Your task to perform on an android device: turn on priority inbox in the gmail app Image 0: 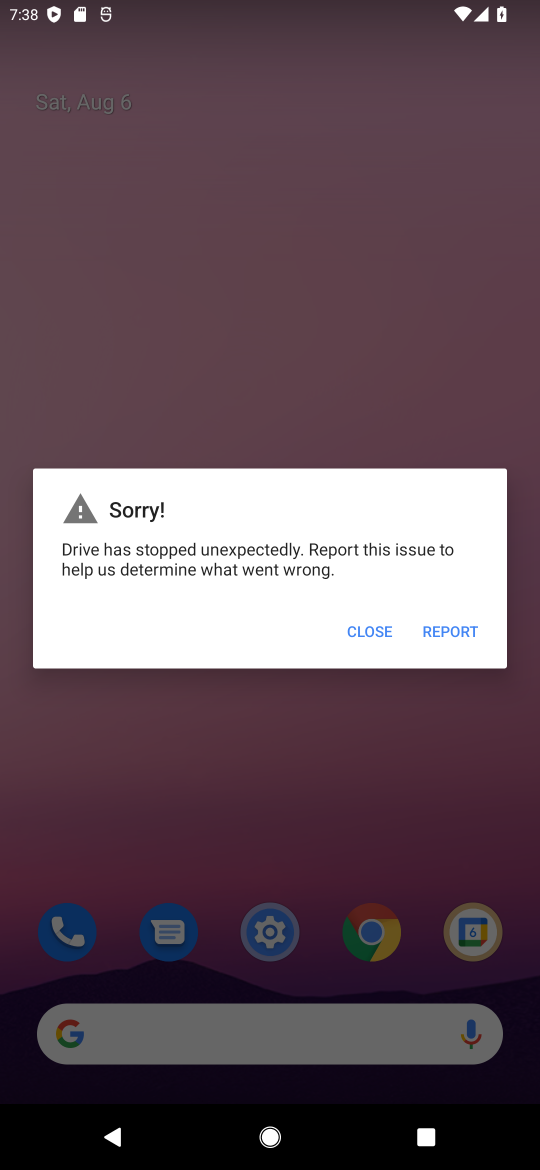
Step 0: press home button
Your task to perform on an android device: turn on priority inbox in the gmail app Image 1: 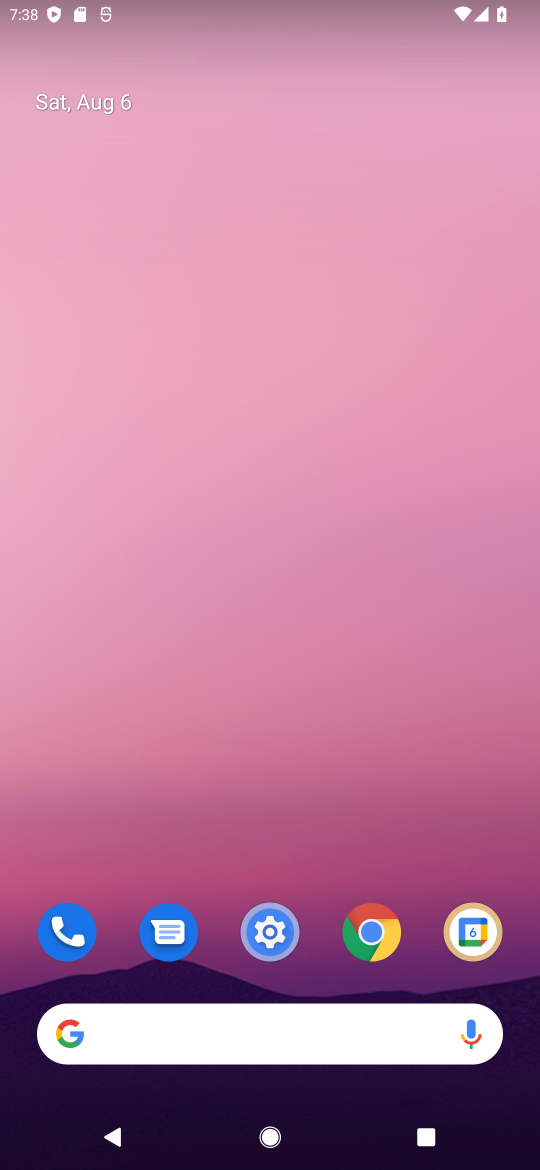
Step 1: drag from (300, 991) to (380, 417)
Your task to perform on an android device: turn on priority inbox in the gmail app Image 2: 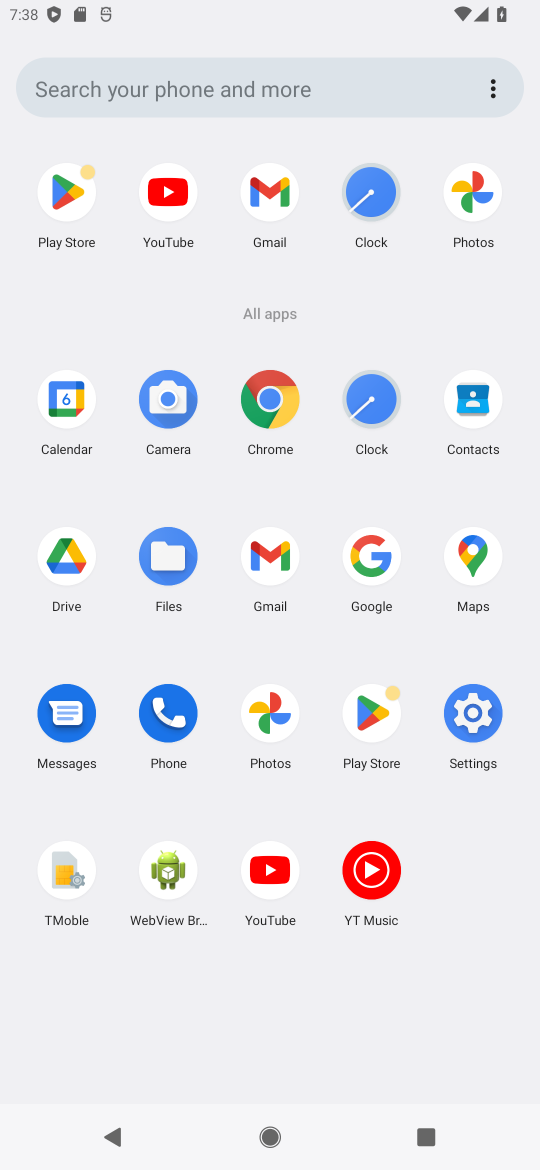
Step 2: click (262, 193)
Your task to perform on an android device: turn on priority inbox in the gmail app Image 3: 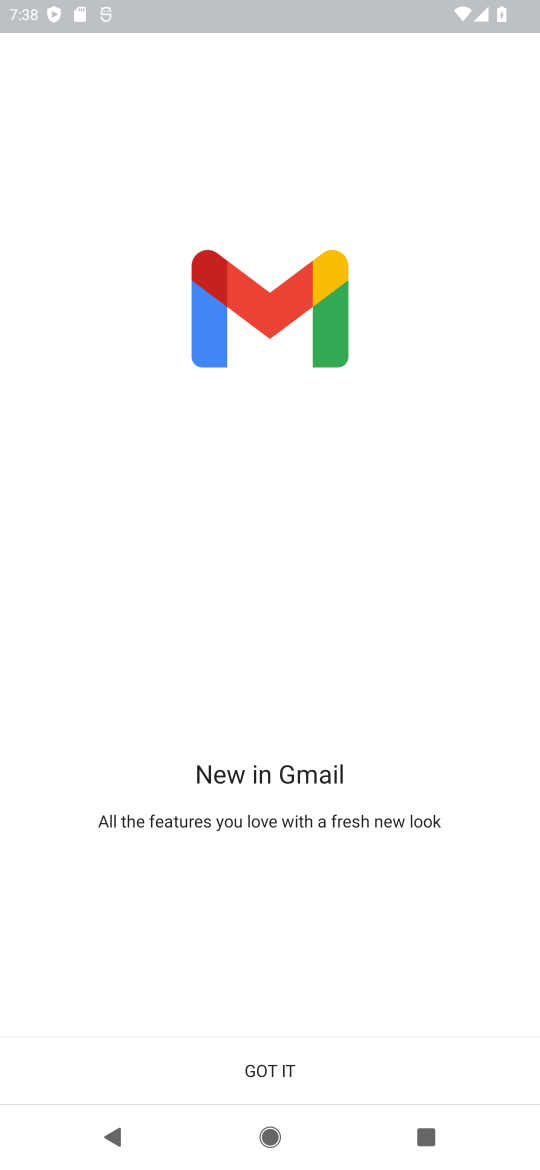
Step 3: click (279, 1059)
Your task to perform on an android device: turn on priority inbox in the gmail app Image 4: 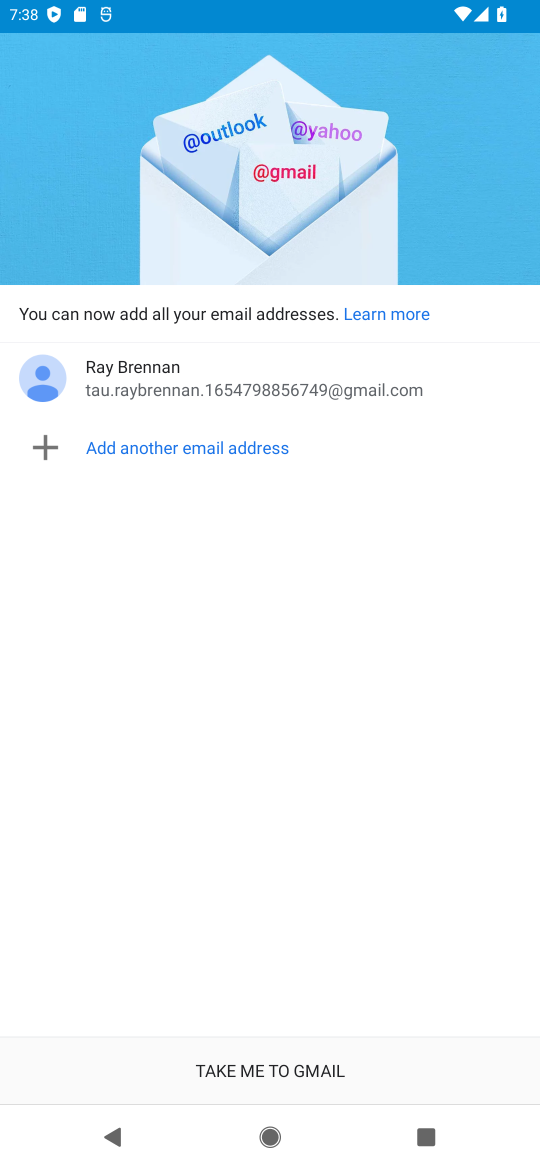
Step 4: click (282, 1059)
Your task to perform on an android device: turn on priority inbox in the gmail app Image 5: 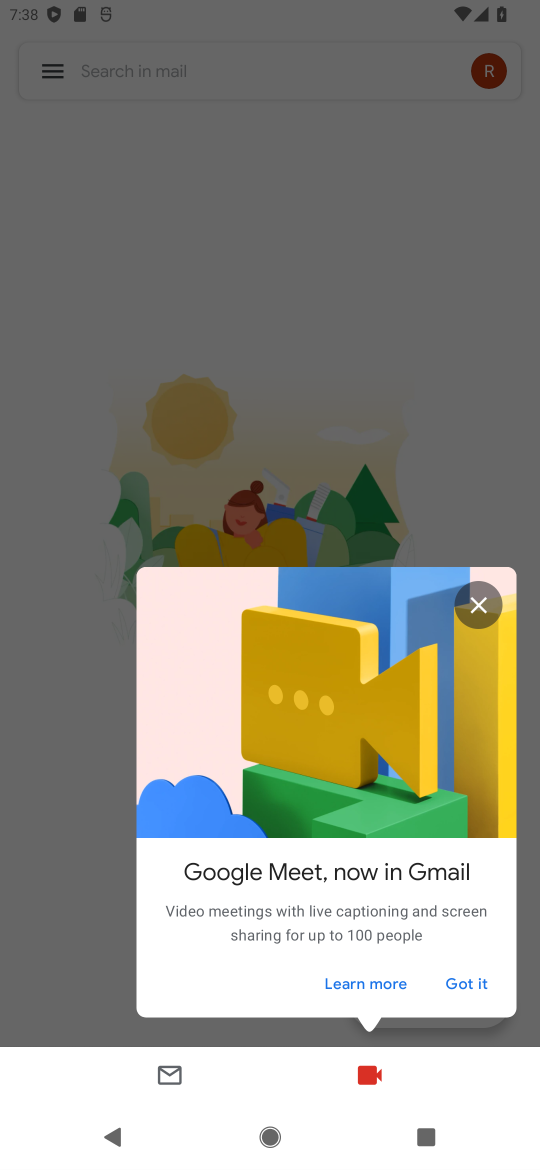
Step 5: click (54, 66)
Your task to perform on an android device: turn on priority inbox in the gmail app Image 6: 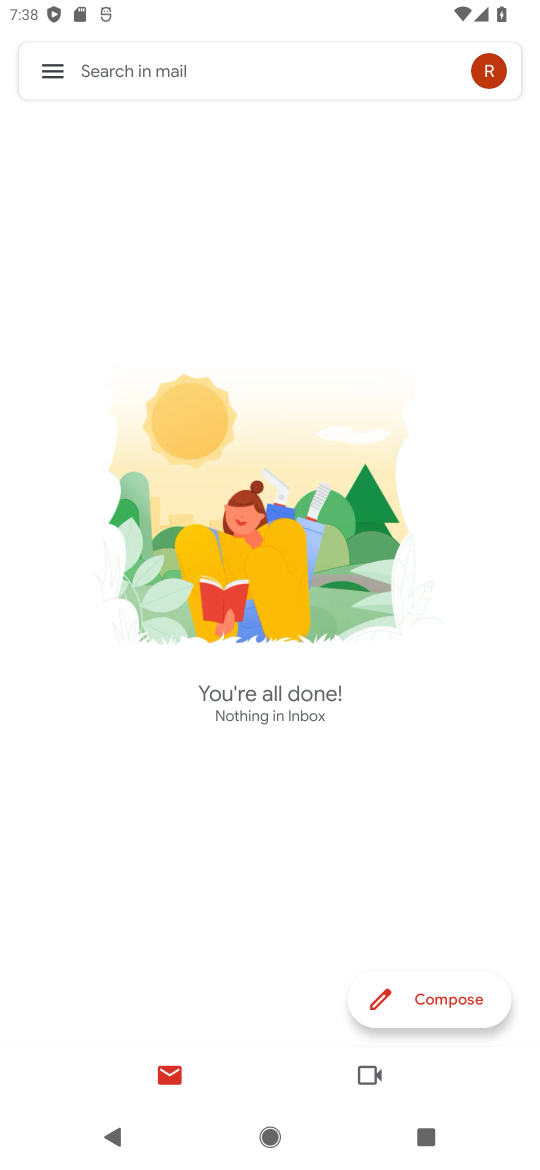
Step 6: click (54, 66)
Your task to perform on an android device: turn on priority inbox in the gmail app Image 7: 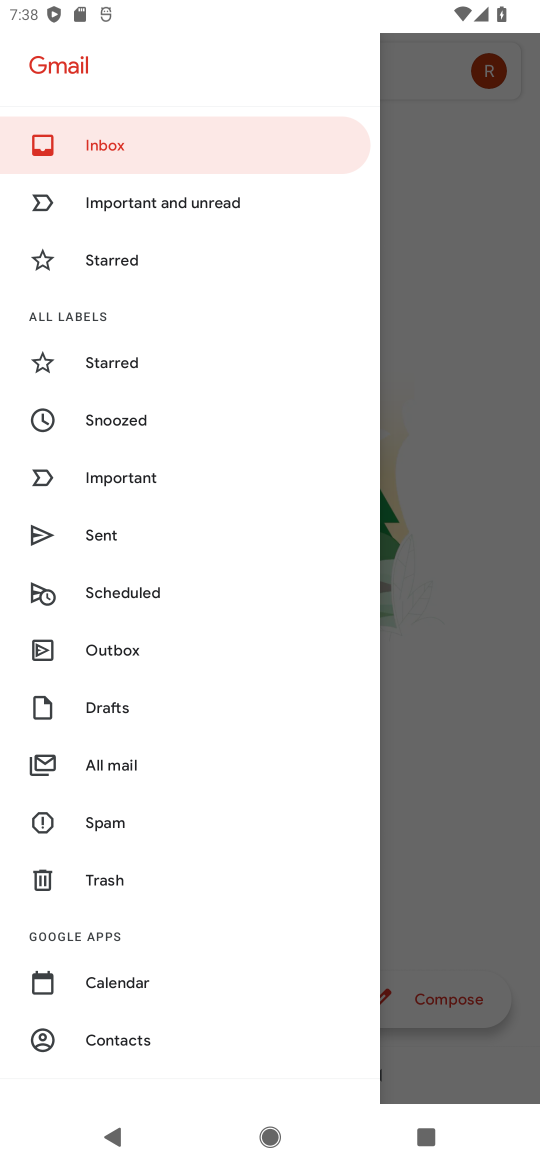
Step 7: drag from (184, 1004) to (273, 59)
Your task to perform on an android device: turn on priority inbox in the gmail app Image 8: 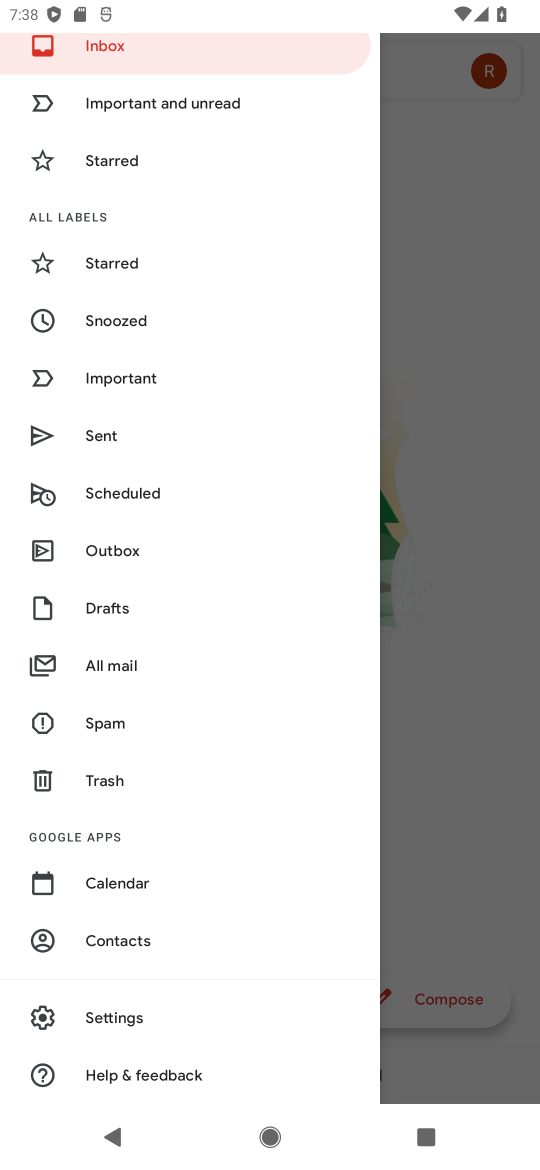
Step 8: click (132, 1017)
Your task to perform on an android device: turn on priority inbox in the gmail app Image 9: 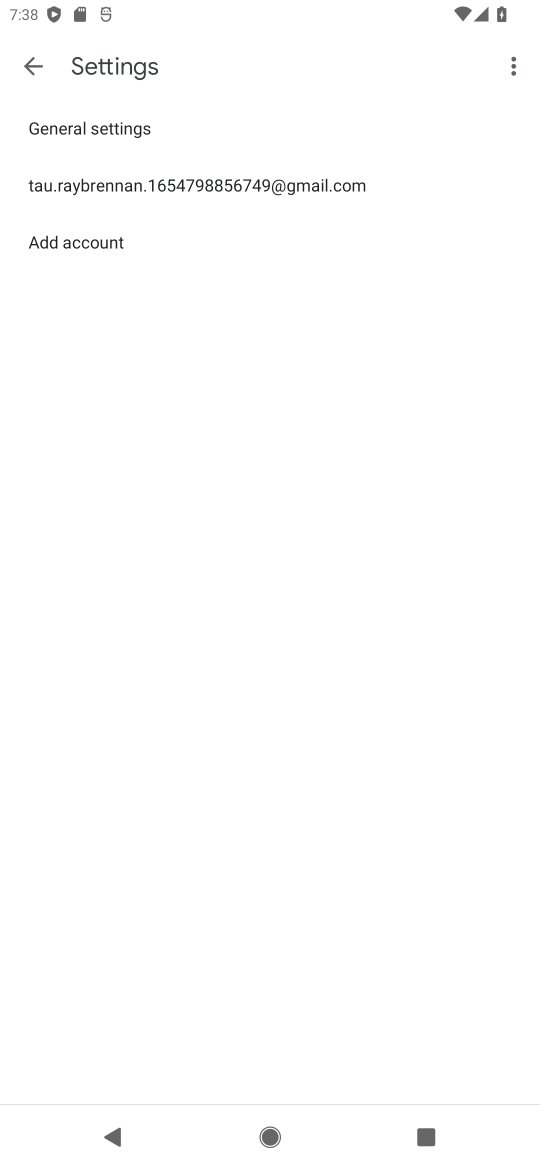
Step 9: click (346, 172)
Your task to perform on an android device: turn on priority inbox in the gmail app Image 10: 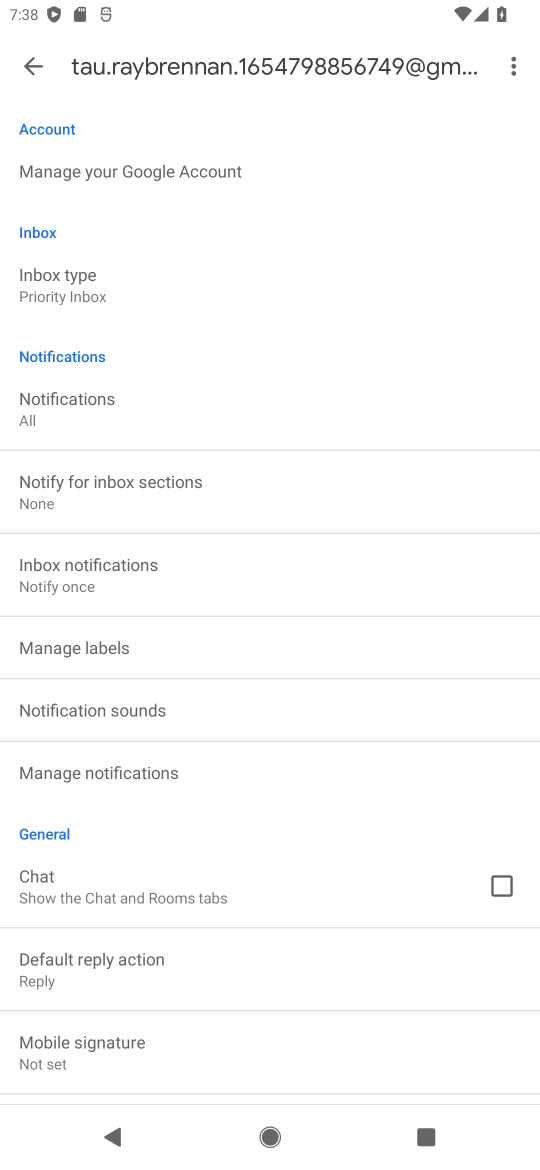
Step 10: click (79, 285)
Your task to perform on an android device: turn on priority inbox in the gmail app Image 11: 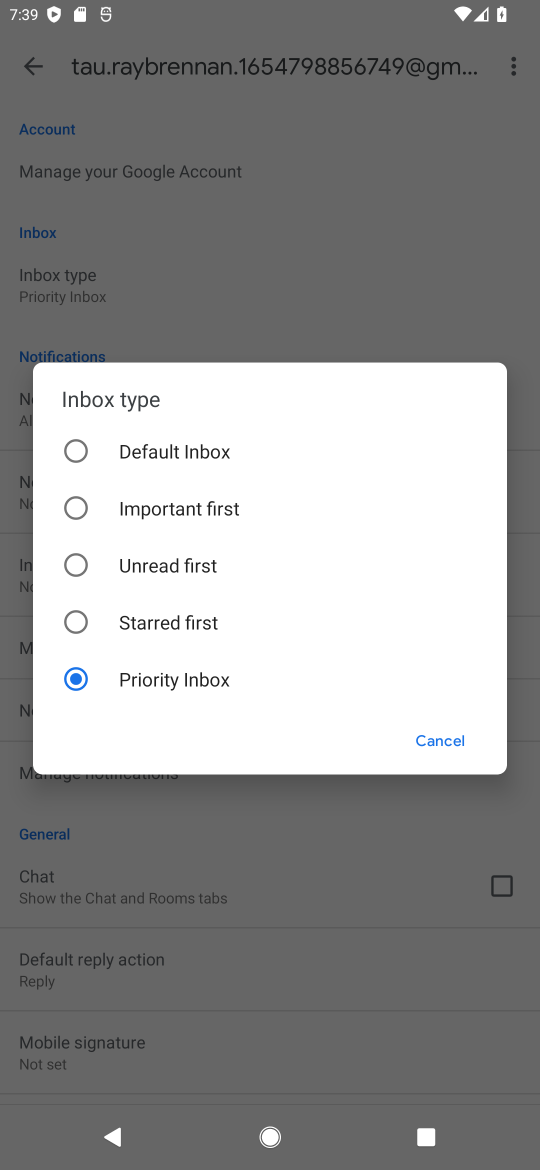
Step 11: task complete